Your task to perform on an android device: Search for "beats solo 3" on bestbuy, select the first entry, and add it to the cart. Image 0: 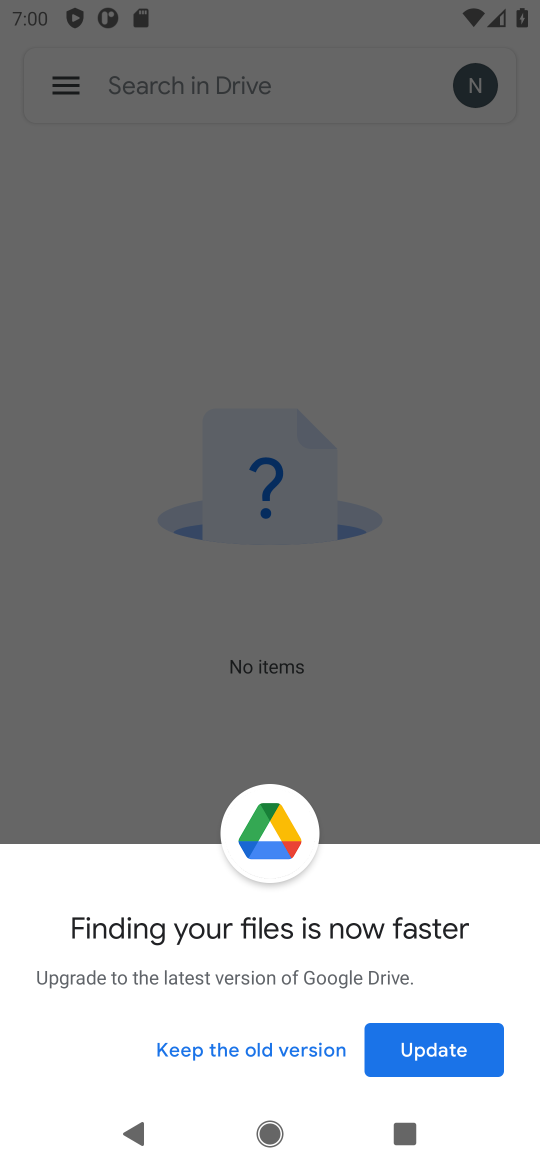
Step 0: press home button
Your task to perform on an android device: Search for "beats solo 3" on bestbuy, select the first entry, and add it to the cart. Image 1: 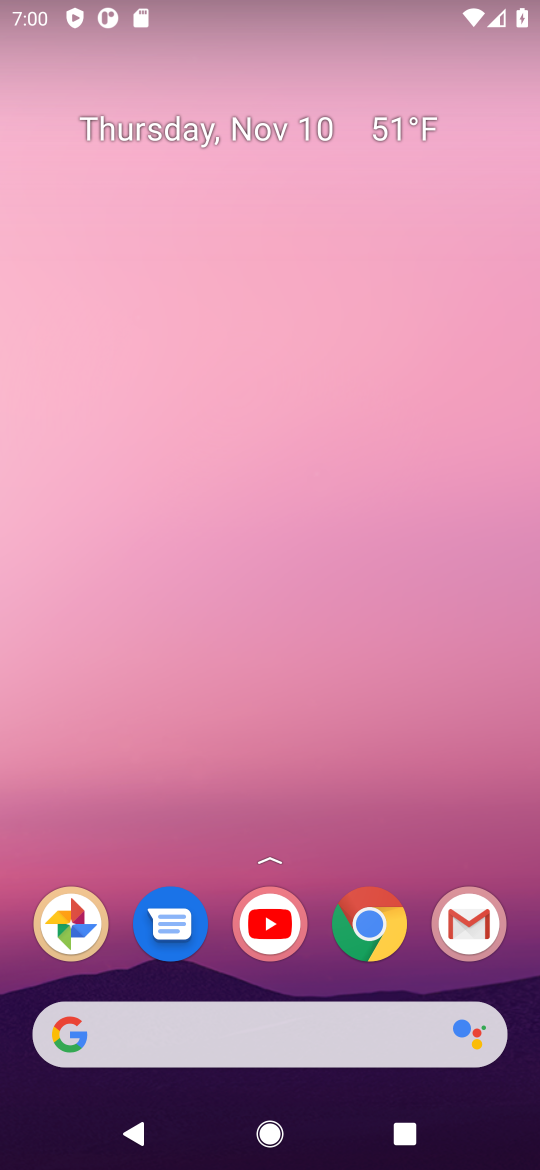
Step 1: click (363, 925)
Your task to perform on an android device: Search for "beats solo 3" on bestbuy, select the first entry, and add it to the cart. Image 2: 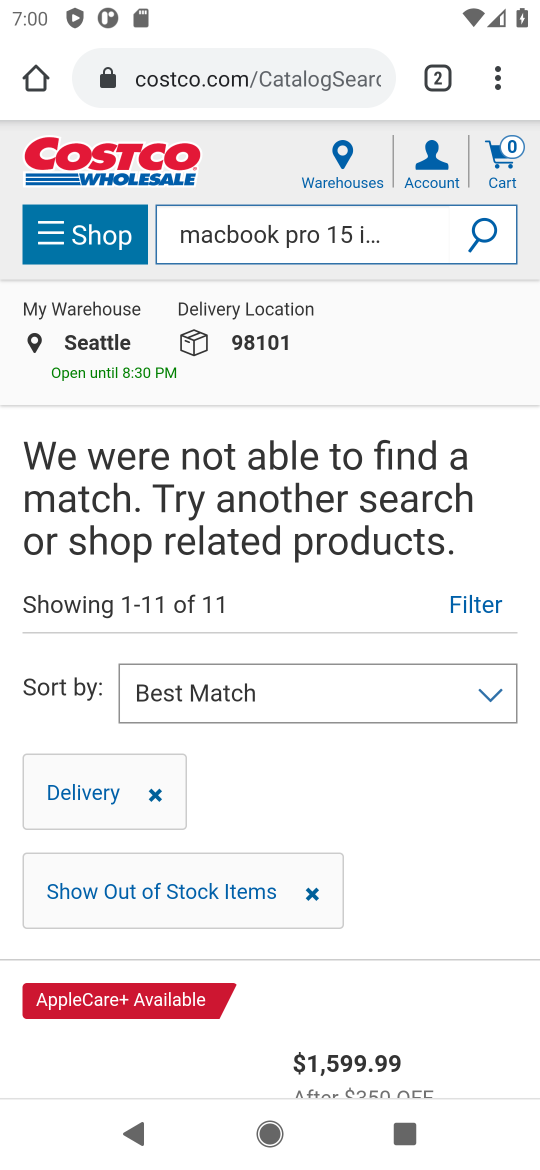
Step 2: click (265, 81)
Your task to perform on an android device: Search for "beats solo 3" on bestbuy, select the first entry, and add it to the cart. Image 3: 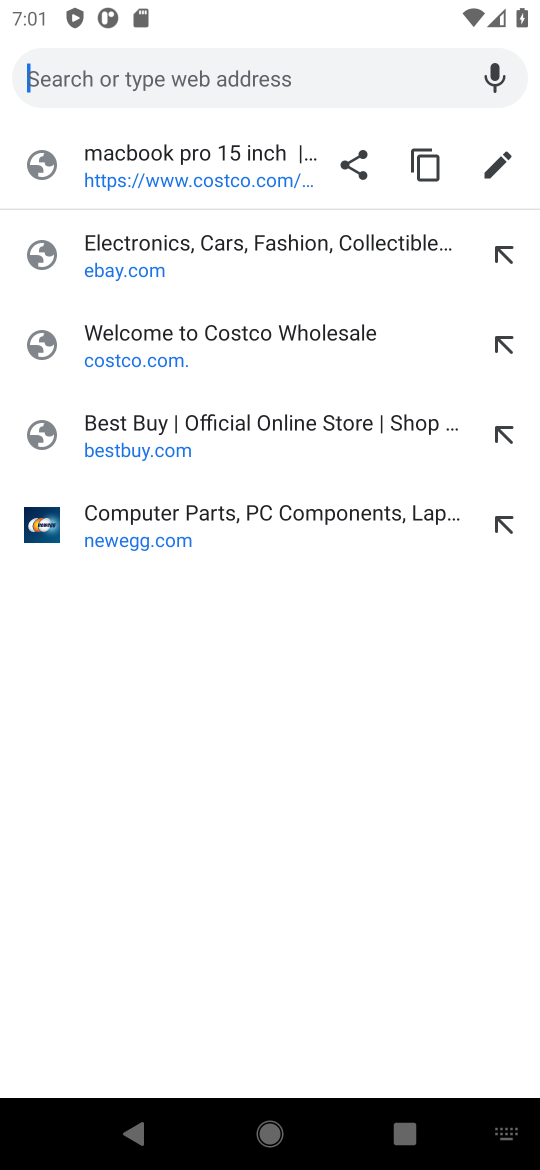
Step 3: click (114, 431)
Your task to perform on an android device: Search for "beats solo 3" on bestbuy, select the first entry, and add it to the cart. Image 4: 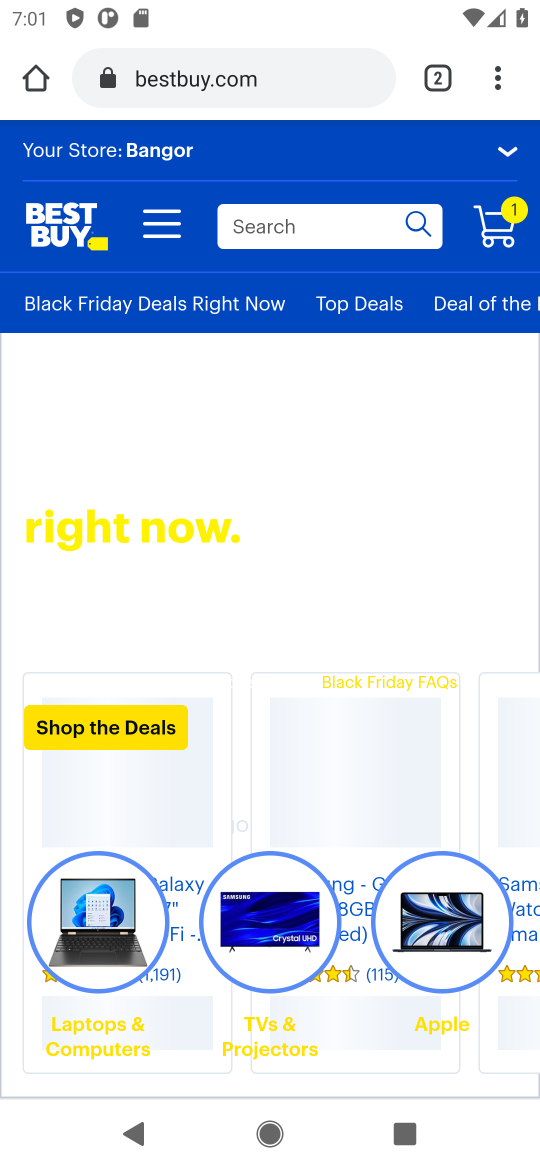
Step 4: click (237, 234)
Your task to perform on an android device: Search for "beats solo 3" on bestbuy, select the first entry, and add it to the cart. Image 5: 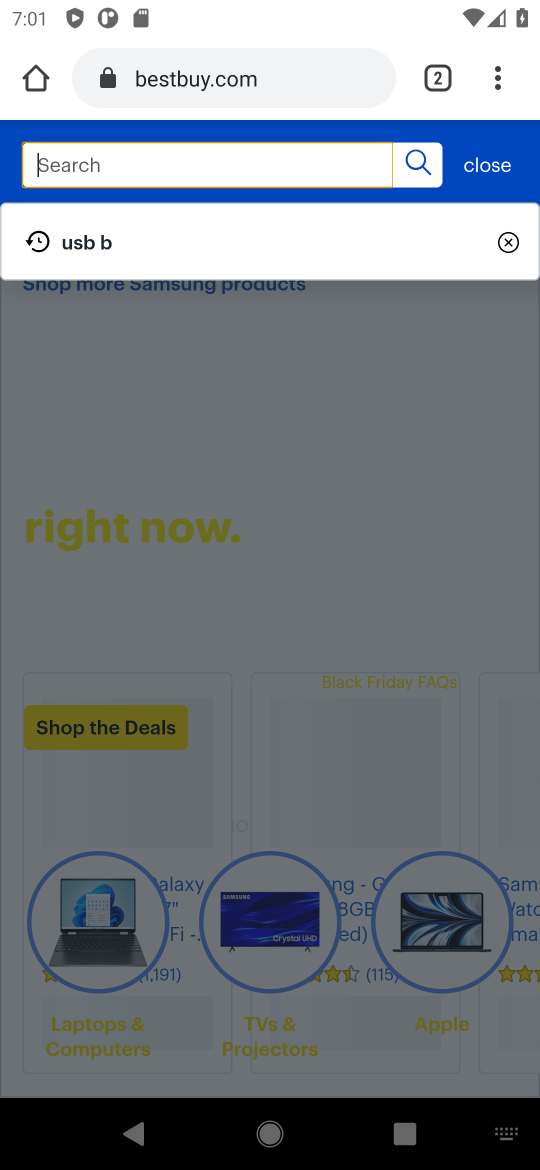
Step 5: type "beats solo 3"
Your task to perform on an android device: Search for "beats solo 3" on bestbuy, select the first entry, and add it to the cart. Image 6: 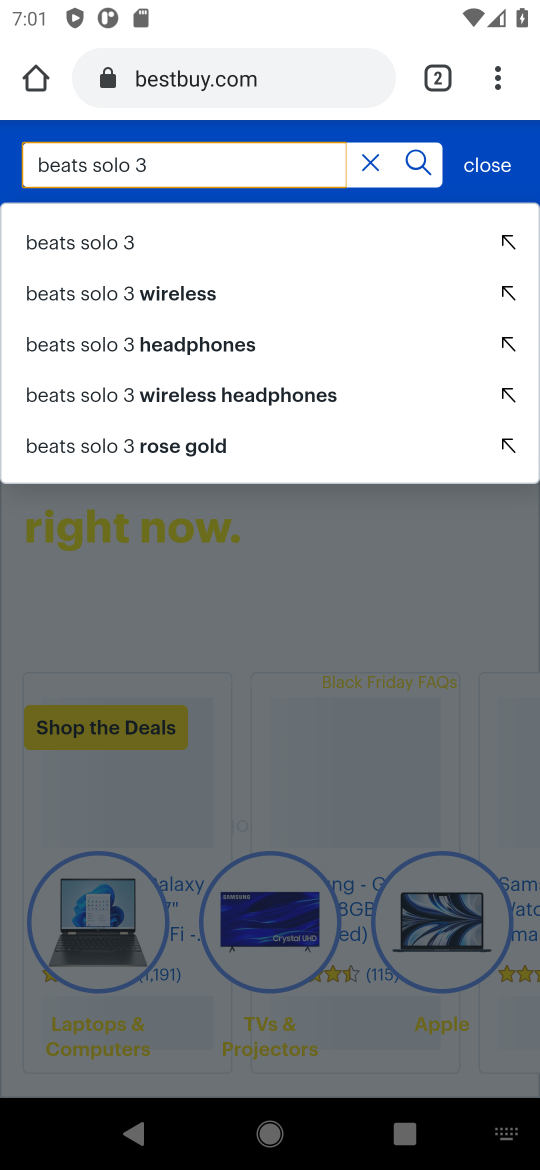
Step 6: click (110, 253)
Your task to perform on an android device: Search for "beats solo 3" on bestbuy, select the first entry, and add it to the cart. Image 7: 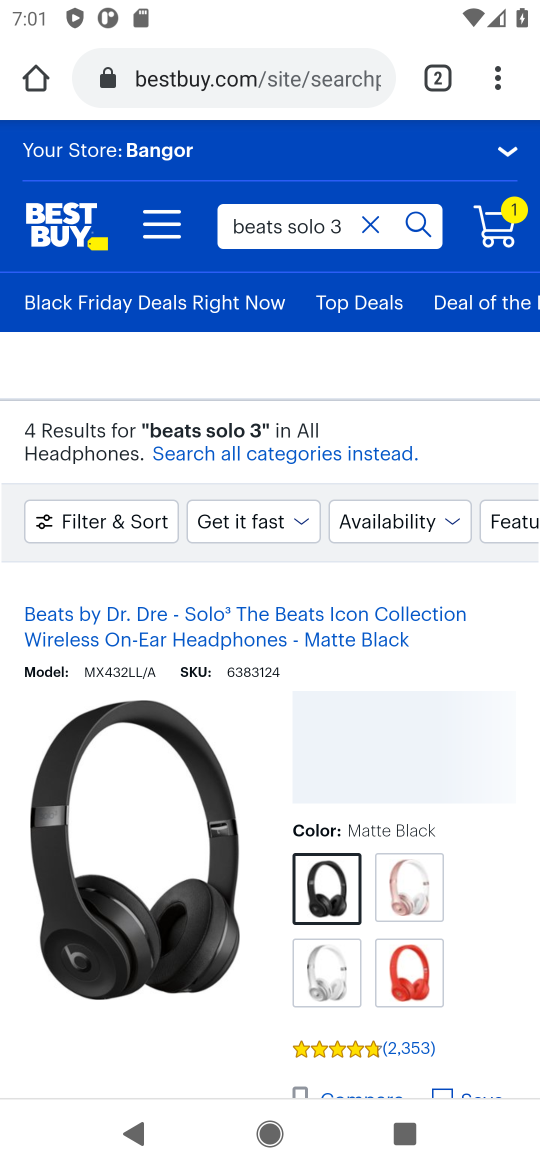
Step 7: drag from (130, 883) to (138, 538)
Your task to perform on an android device: Search for "beats solo 3" on bestbuy, select the first entry, and add it to the cart. Image 8: 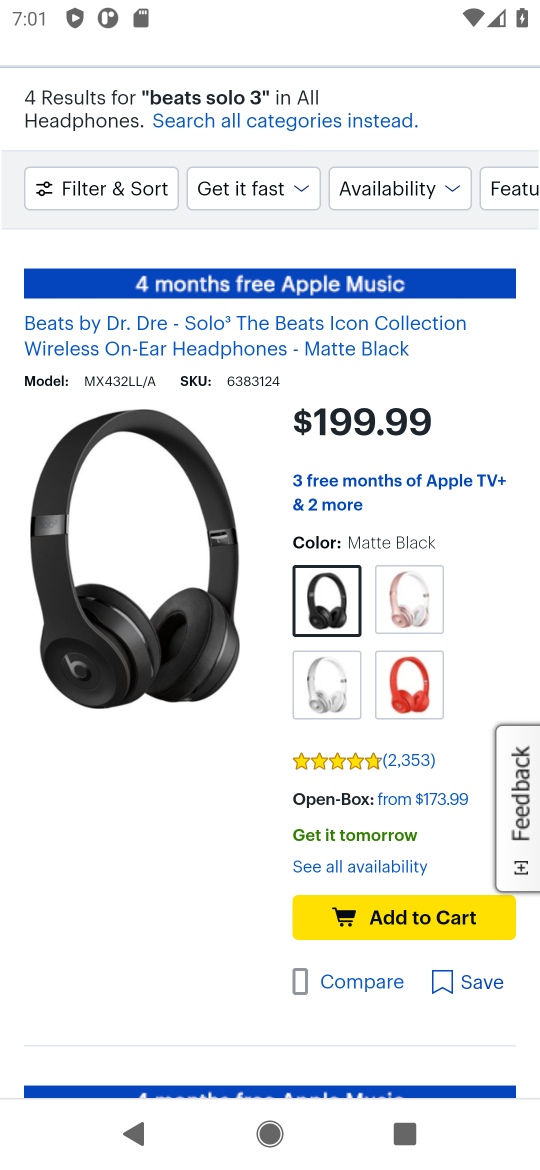
Step 8: click (405, 902)
Your task to perform on an android device: Search for "beats solo 3" on bestbuy, select the first entry, and add it to the cart. Image 9: 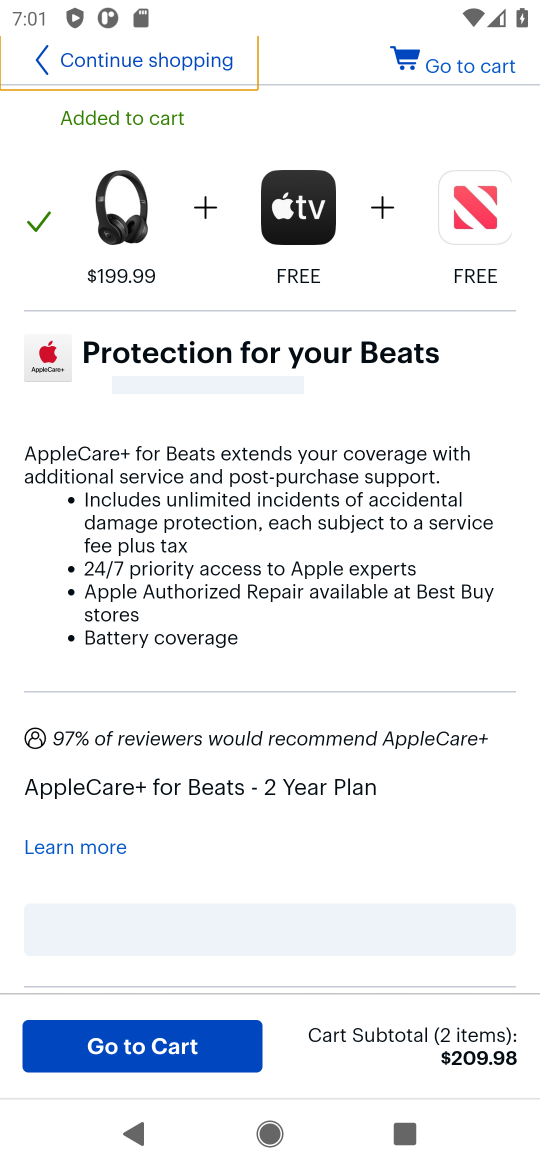
Step 9: task complete